Your task to perform on an android device: open device folders in google photos Image 0: 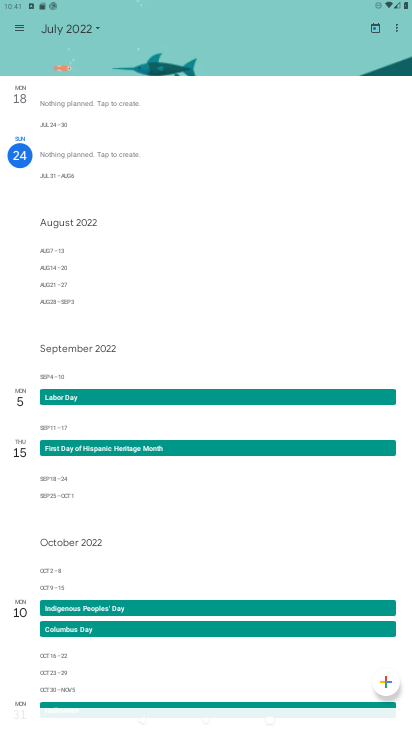
Step 0: press home button
Your task to perform on an android device: open device folders in google photos Image 1: 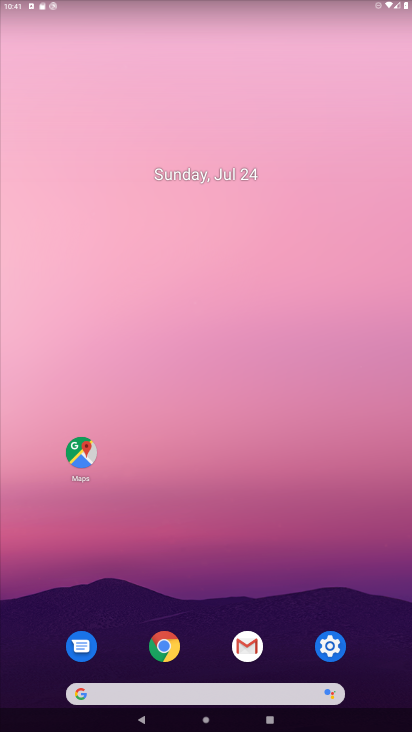
Step 1: drag from (291, 699) to (296, 138)
Your task to perform on an android device: open device folders in google photos Image 2: 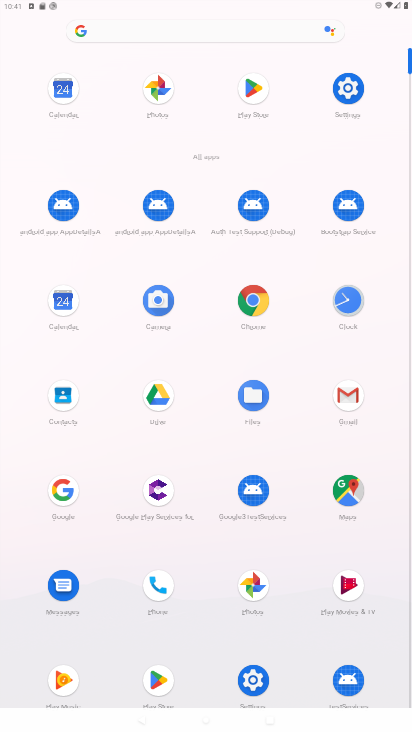
Step 2: click (256, 581)
Your task to perform on an android device: open device folders in google photos Image 3: 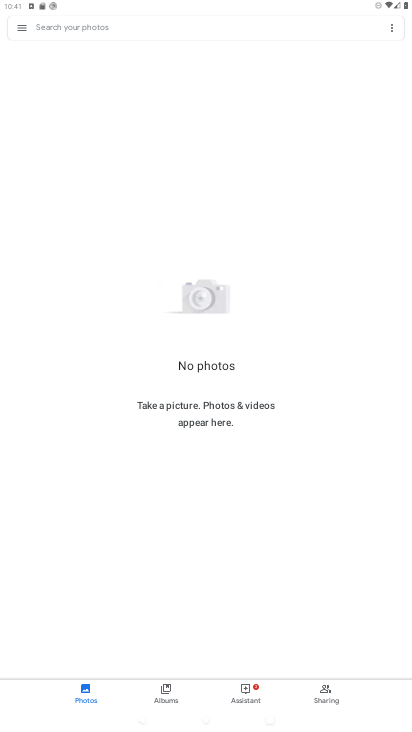
Step 3: click (83, 30)
Your task to perform on an android device: open device folders in google photos Image 4: 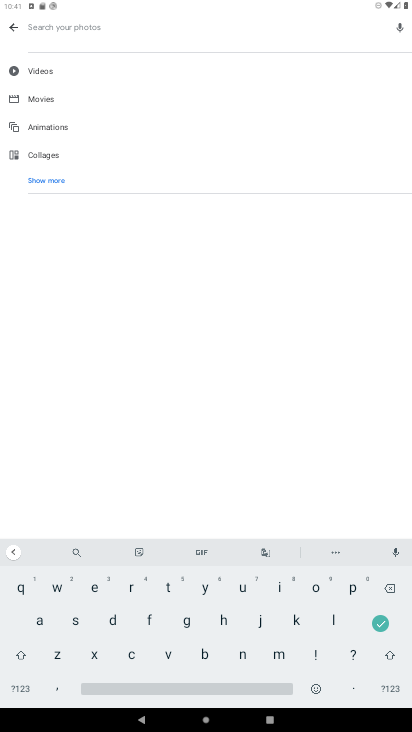
Step 4: click (111, 621)
Your task to perform on an android device: open device folders in google photos Image 5: 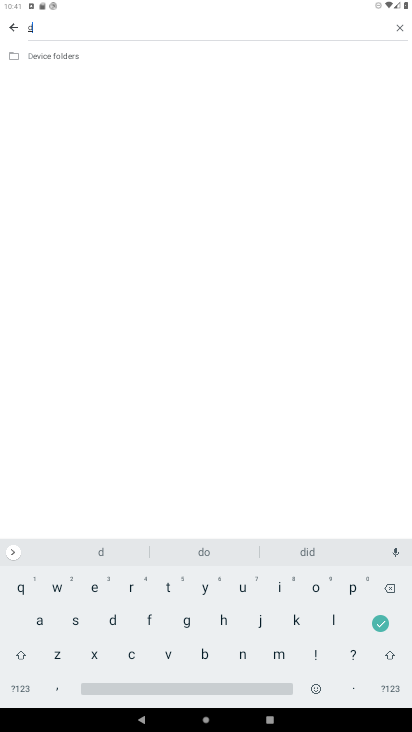
Step 5: click (90, 59)
Your task to perform on an android device: open device folders in google photos Image 6: 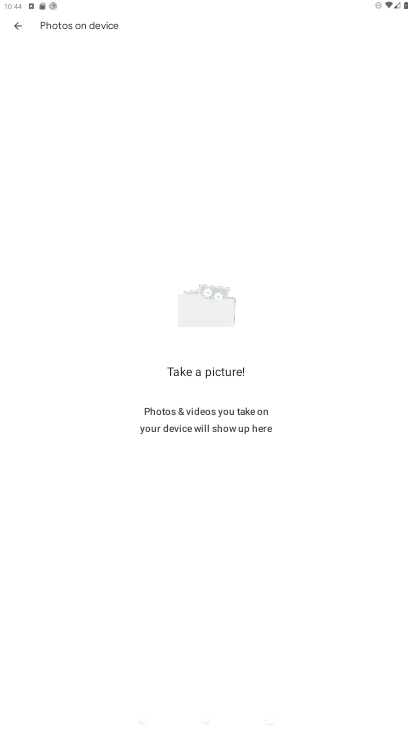
Step 6: task complete